Your task to perform on an android device: Empty the shopping cart on ebay.com. Search for "acer predator" on ebay.com, select the first entry, add it to the cart, then select checkout. Image 0: 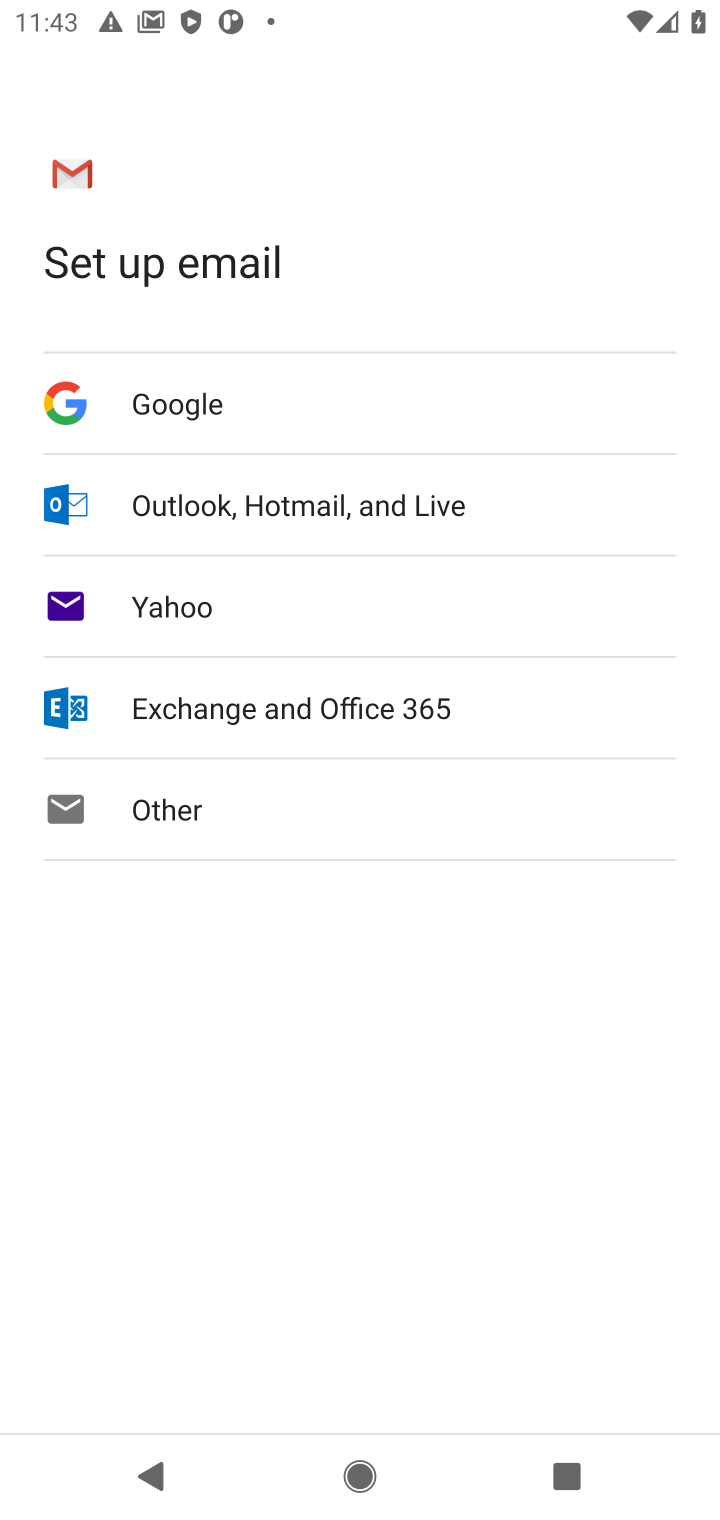
Step 0: task complete